Your task to perform on an android device: add a label to a message in the gmail app Image 0: 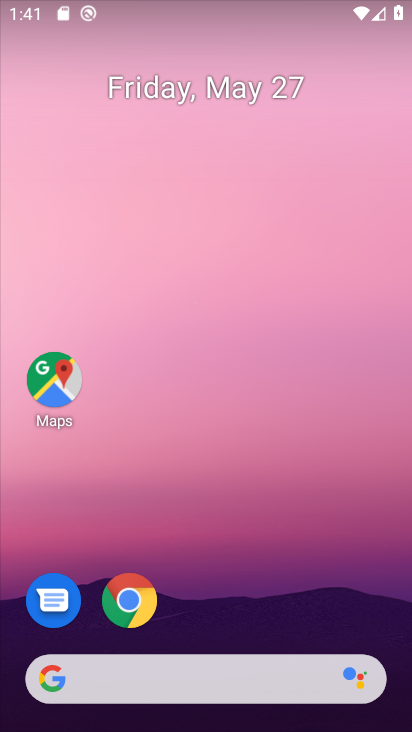
Step 0: drag from (239, 515) to (88, 20)
Your task to perform on an android device: add a label to a message in the gmail app Image 1: 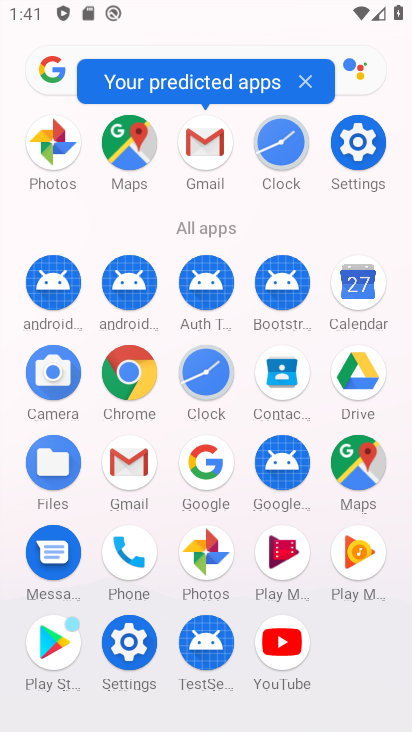
Step 1: drag from (2, 479) to (19, 238)
Your task to perform on an android device: add a label to a message in the gmail app Image 2: 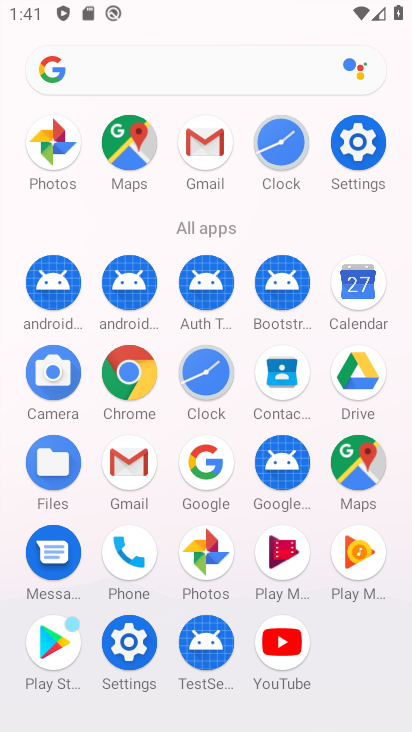
Step 2: click (129, 458)
Your task to perform on an android device: add a label to a message in the gmail app Image 3: 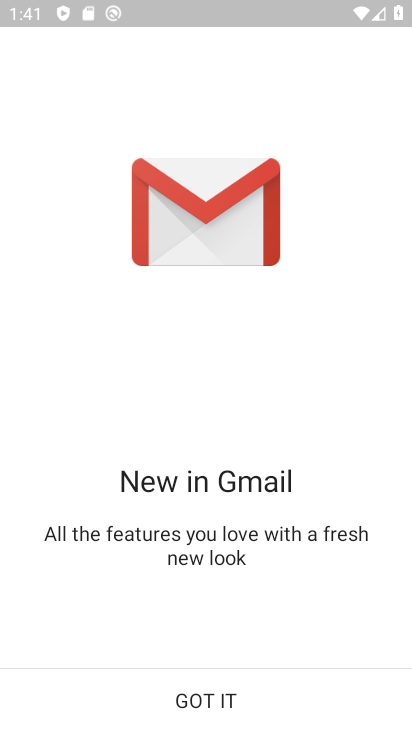
Step 3: click (222, 702)
Your task to perform on an android device: add a label to a message in the gmail app Image 4: 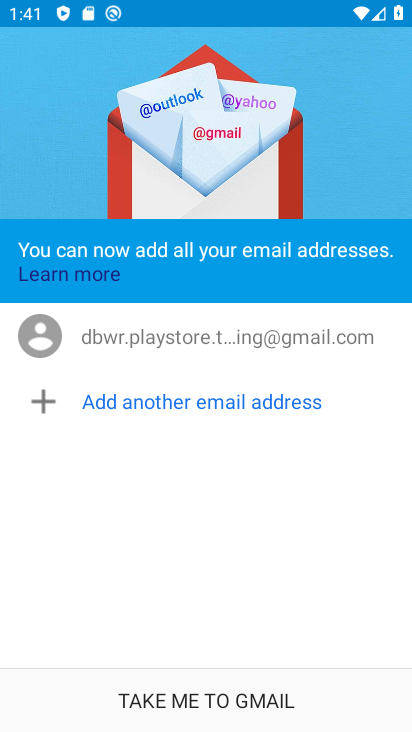
Step 4: click (219, 696)
Your task to perform on an android device: add a label to a message in the gmail app Image 5: 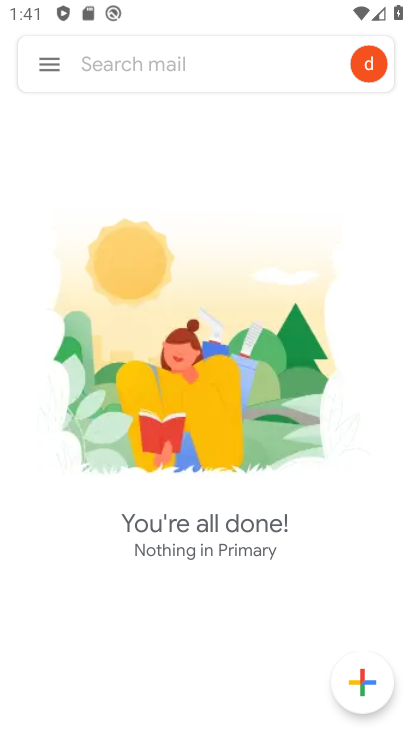
Step 5: click (21, 53)
Your task to perform on an android device: add a label to a message in the gmail app Image 6: 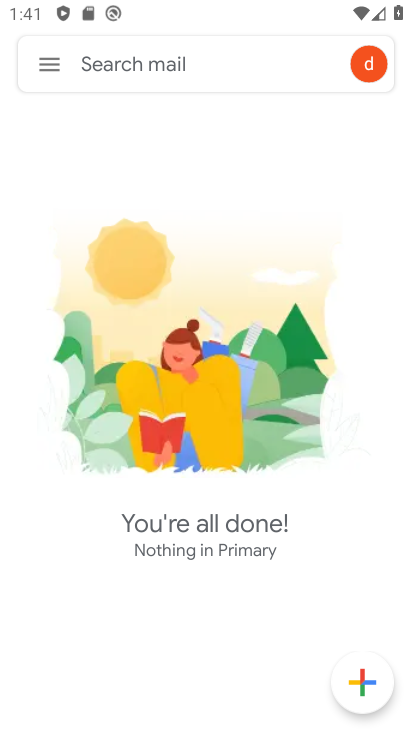
Step 6: click (48, 54)
Your task to perform on an android device: add a label to a message in the gmail app Image 7: 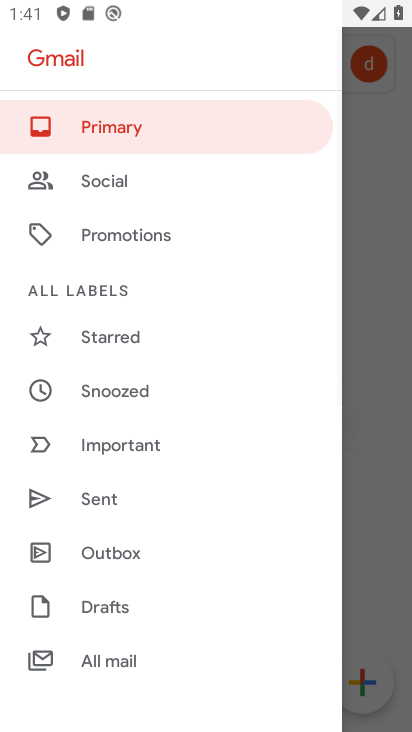
Step 7: drag from (185, 547) to (195, 155)
Your task to perform on an android device: add a label to a message in the gmail app Image 8: 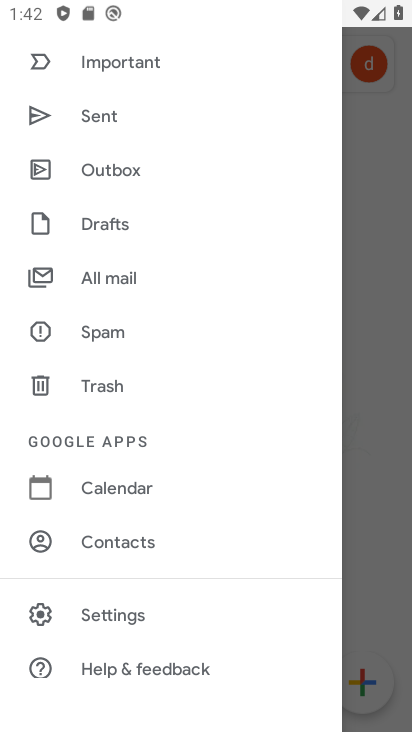
Step 8: click (108, 278)
Your task to perform on an android device: add a label to a message in the gmail app Image 9: 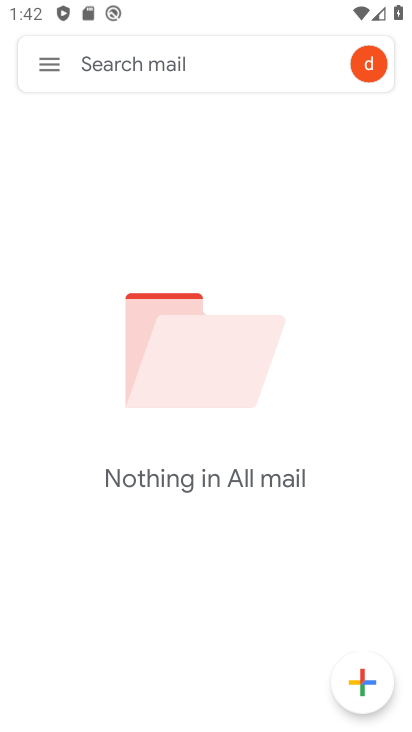
Step 9: click (37, 57)
Your task to perform on an android device: add a label to a message in the gmail app Image 10: 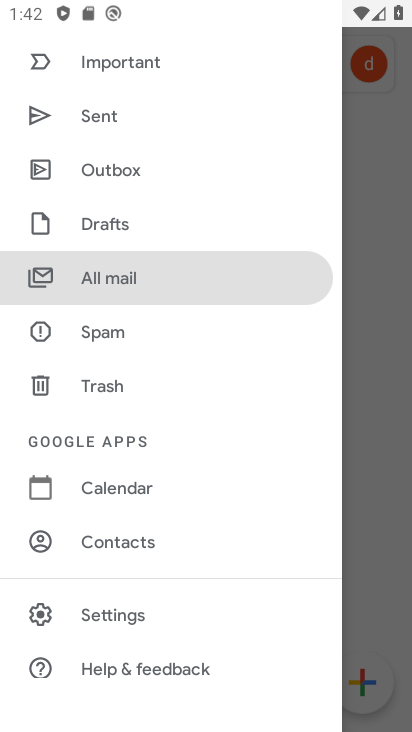
Step 10: drag from (171, 179) to (178, 529)
Your task to perform on an android device: add a label to a message in the gmail app Image 11: 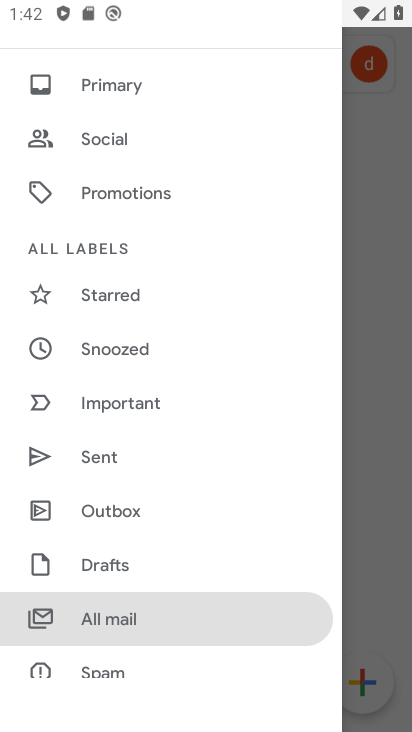
Step 11: click (142, 81)
Your task to perform on an android device: add a label to a message in the gmail app Image 12: 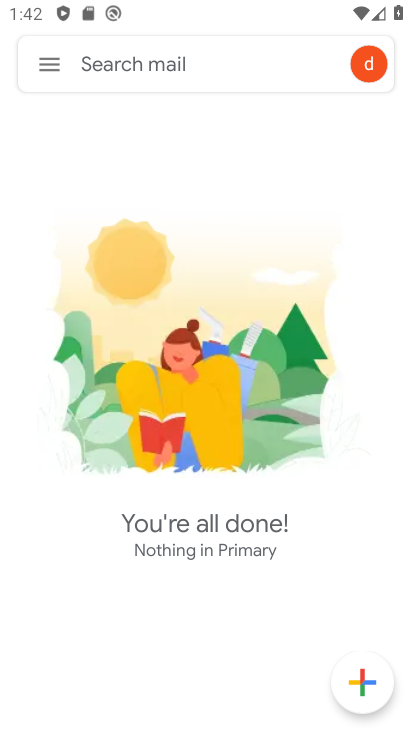
Step 12: task complete